Your task to perform on an android device: toggle improve location accuracy Image 0: 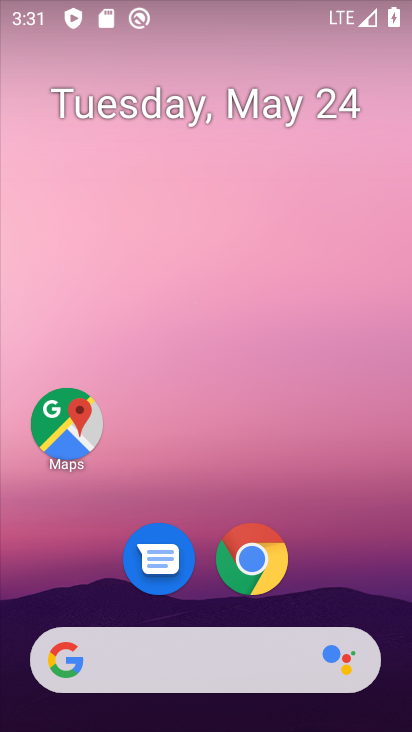
Step 0: drag from (334, 575) to (256, 165)
Your task to perform on an android device: toggle improve location accuracy Image 1: 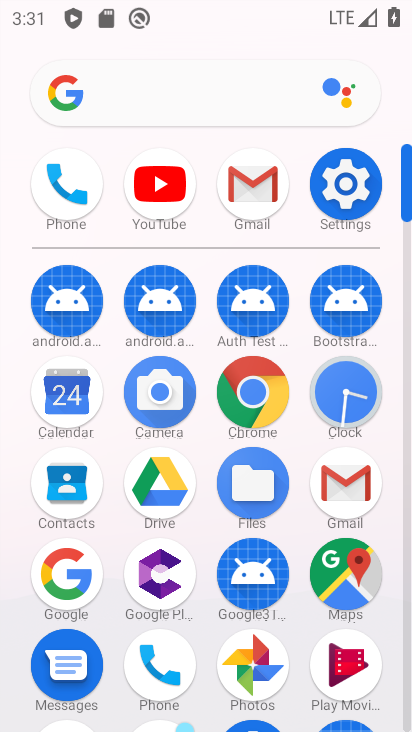
Step 1: click (344, 185)
Your task to perform on an android device: toggle improve location accuracy Image 2: 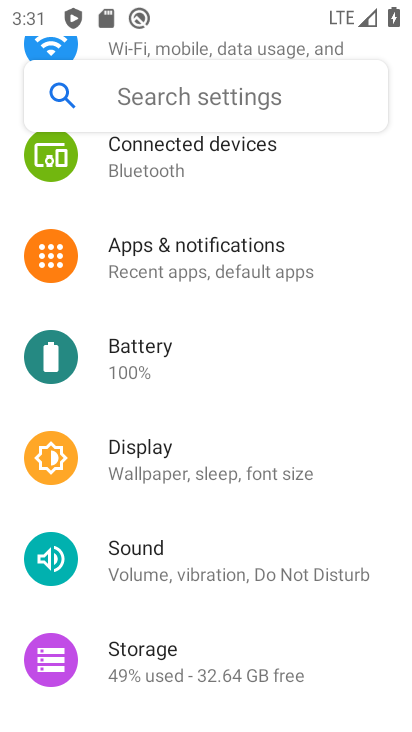
Step 2: drag from (214, 511) to (259, 413)
Your task to perform on an android device: toggle improve location accuracy Image 3: 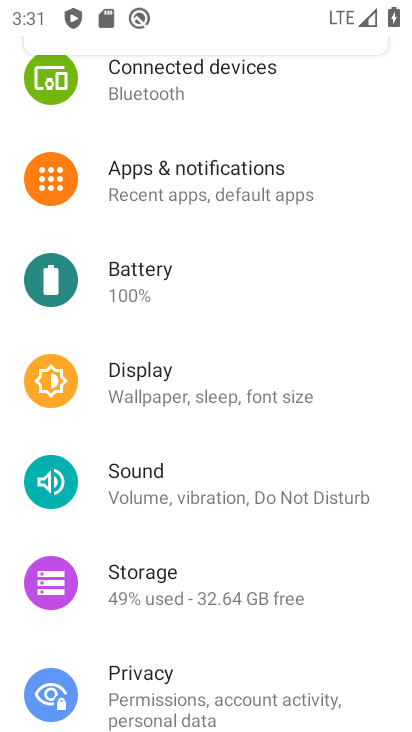
Step 3: drag from (207, 536) to (246, 434)
Your task to perform on an android device: toggle improve location accuracy Image 4: 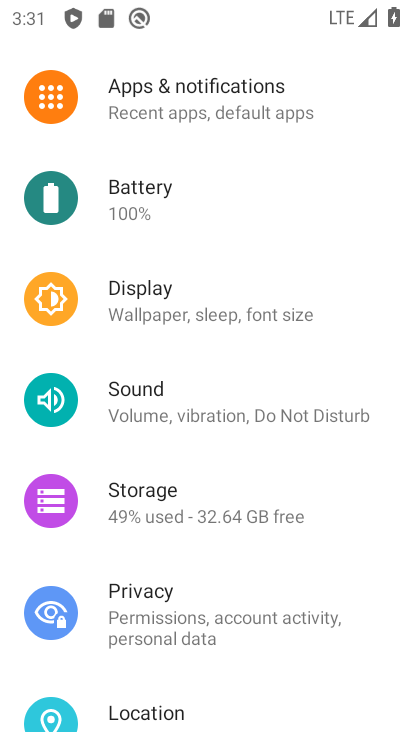
Step 4: drag from (207, 575) to (267, 425)
Your task to perform on an android device: toggle improve location accuracy Image 5: 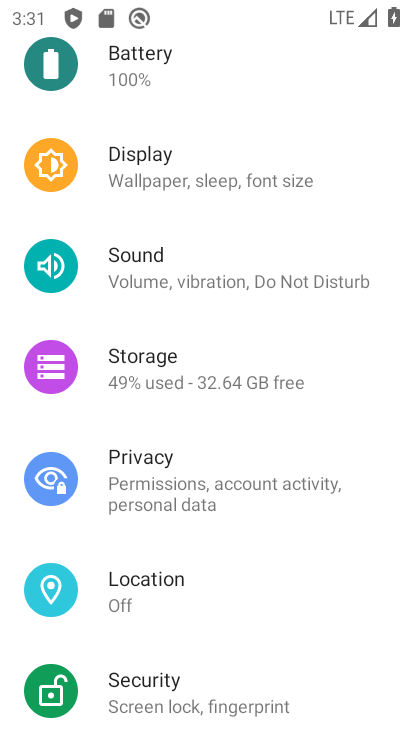
Step 5: click (169, 577)
Your task to perform on an android device: toggle improve location accuracy Image 6: 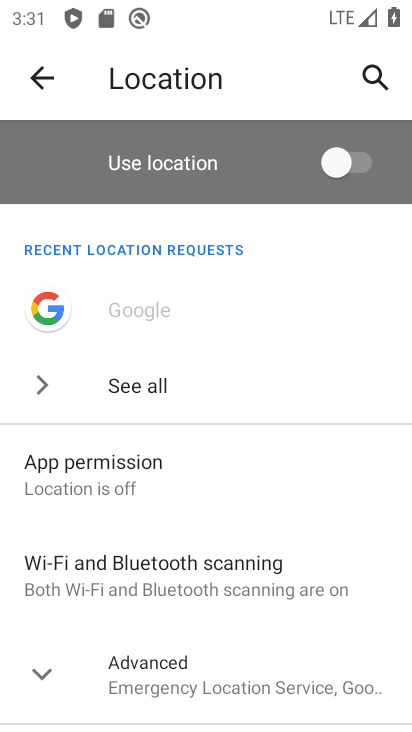
Step 6: drag from (205, 620) to (265, 450)
Your task to perform on an android device: toggle improve location accuracy Image 7: 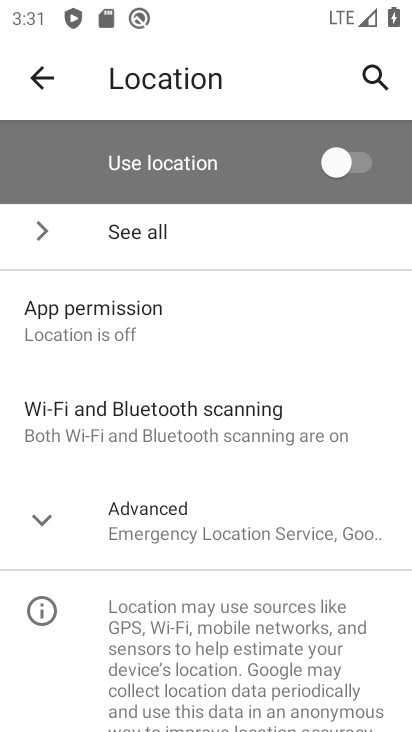
Step 7: click (199, 515)
Your task to perform on an android device: toggle improve location accuracy Image 8: 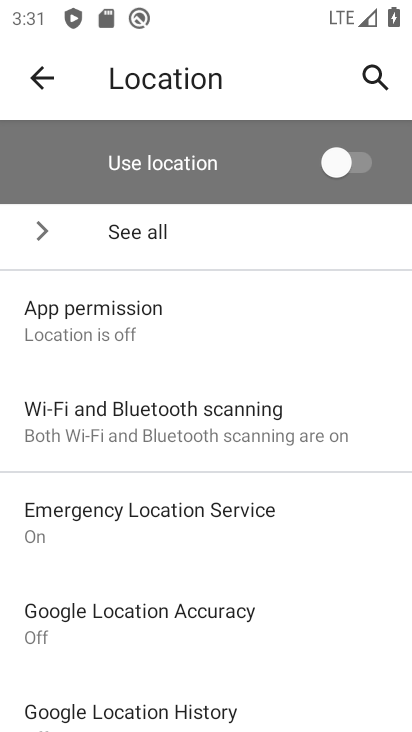
Step 8: drag from (172, 636) to (233, 517)
Your task to perform on an android device: toggle improve location accuracy Image 9: 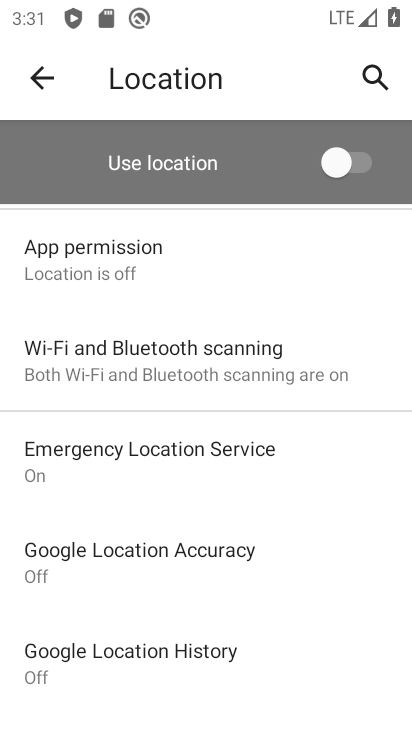
Step 9: click (189, 548)
Your task to perform on an android device: toggle improve location accuracy Image 10: 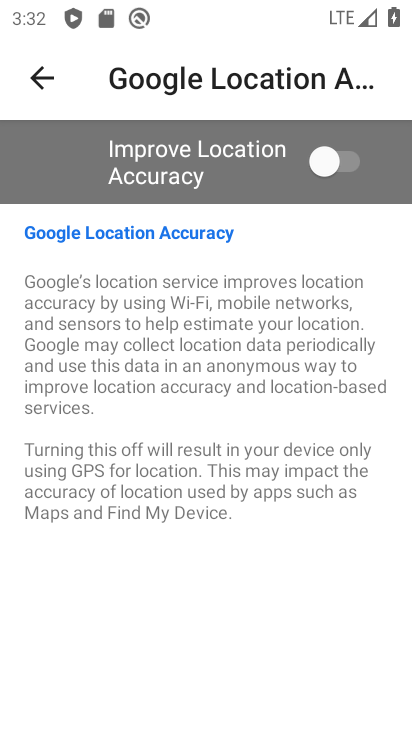
Step 10: click (336, 168)
Your task to perform on an android device: toggle improve location accuracy Image 11: 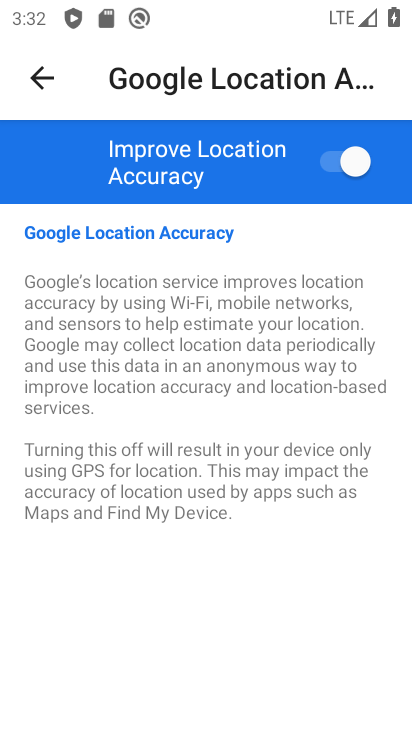
Step 11: task complete